Your task to perform on an android device: turn off priority inbox in the gmail app Image 0: 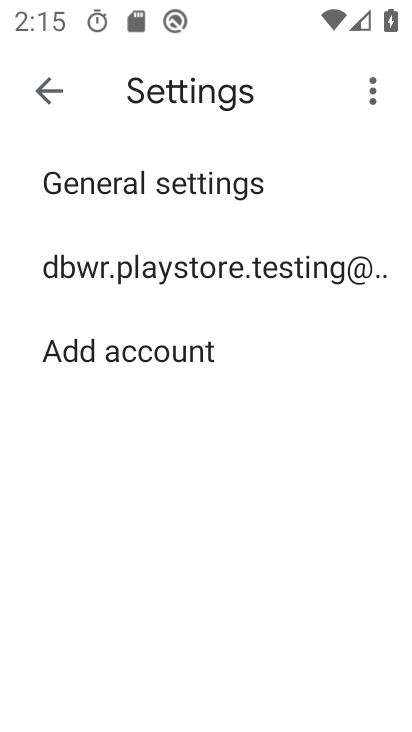
Step 0: click (96, 270)
Your task to perform on an android device: turn off priority inbox in the gmail app Image 1: 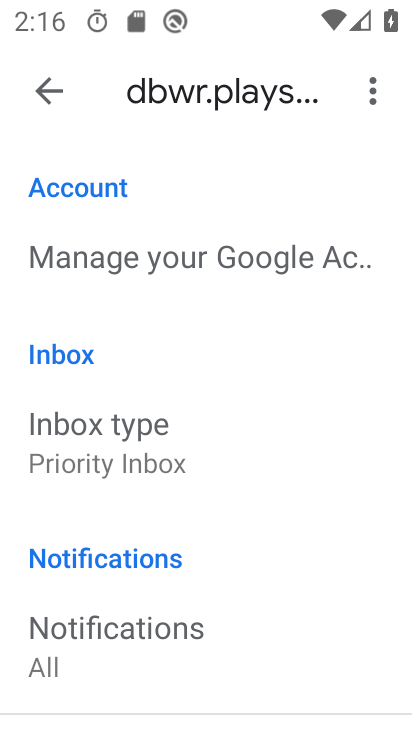
Step 1: click (93, 458)
Your task to perform on an android device: turn off priority inbox in the gmail app Image 2: 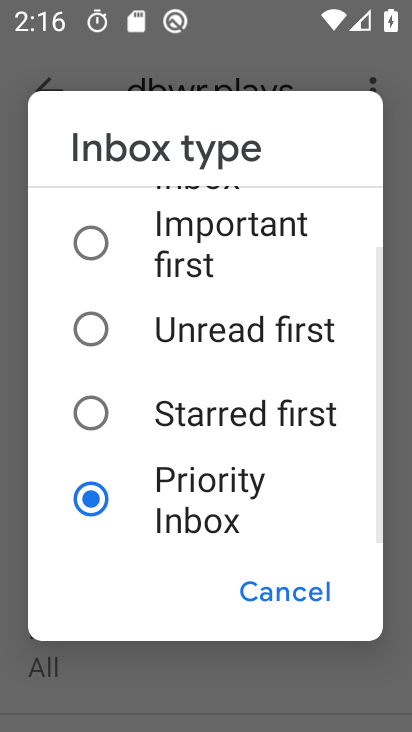
Step 2: click (95, 244)
Your task to perform on an android device: turn off priority inbox in the gmail app Image 3: 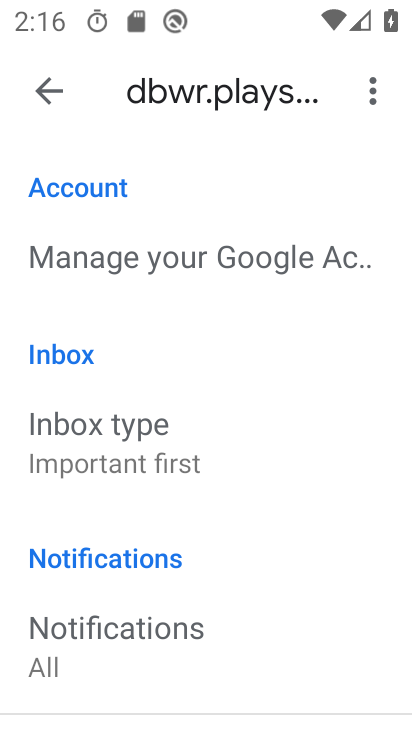
Step 3: task complete